Your task to perform on an android device: turn off smart reply in the gmail app Image 0: 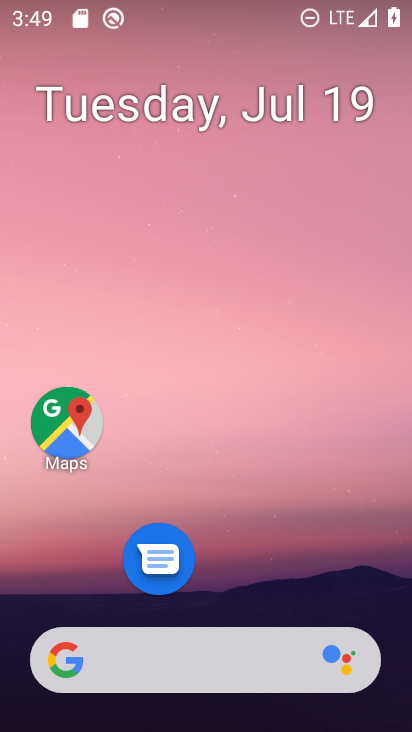
Step 0: drag from (311, 585) to (358, 129)
Your task to perform on an android device: turn off smart reply in the gmail app Image 1: 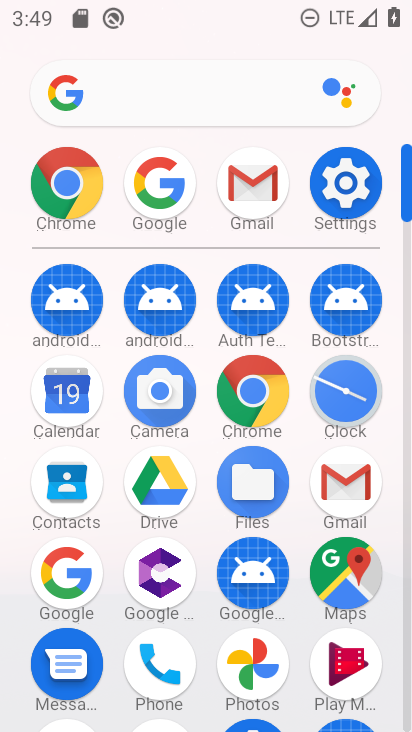
Step 1: click (359, 510)
Your task to perform on an android device: turn off smart reply in the gmail app Image 2: 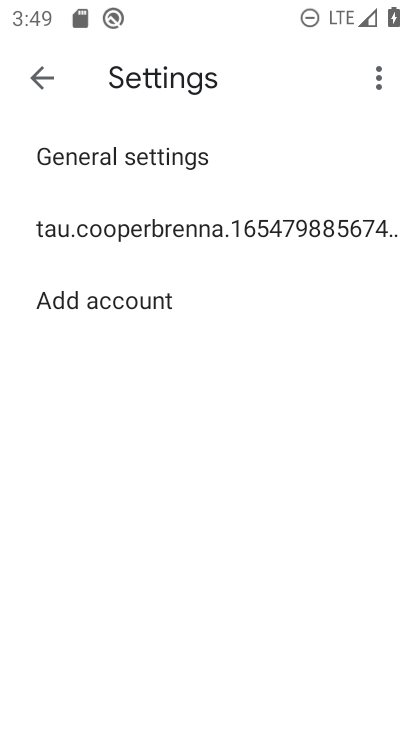
Step 2: click (237, 229)
Your task to perform on an android device: turn off smart reply in the gmail app Image 3: 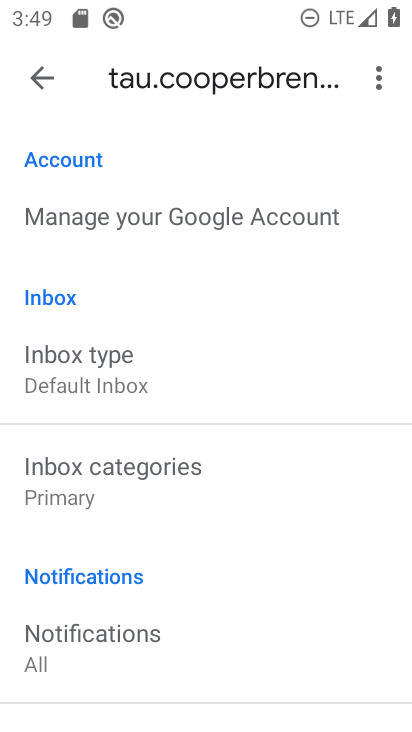
Step 3: task complete